Your task to perform on an android device: star an email in the gmail app Image 0: 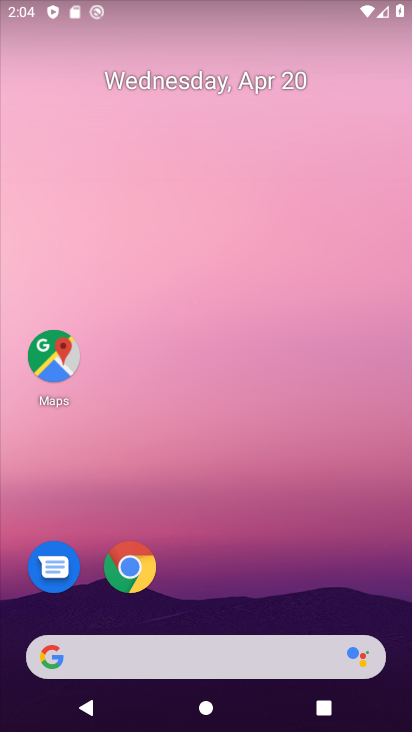
Step 0: drag from (164, 635) to (22, 32)
Your task to perform on an android device: star an email in the gmail app Image 1: 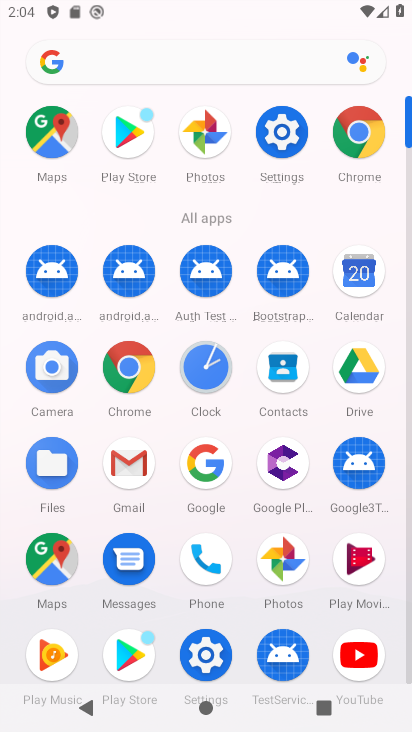
Step 1: click (140, 473)
Your task to perform on an android device: star an email in the gmail app Image 2: 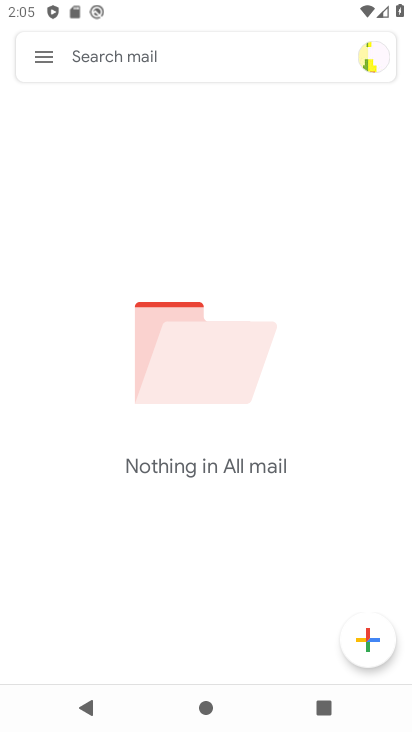
Step 2: task complete